Your task to perform on an android device: Show me the alarms in the clock app Image 0: 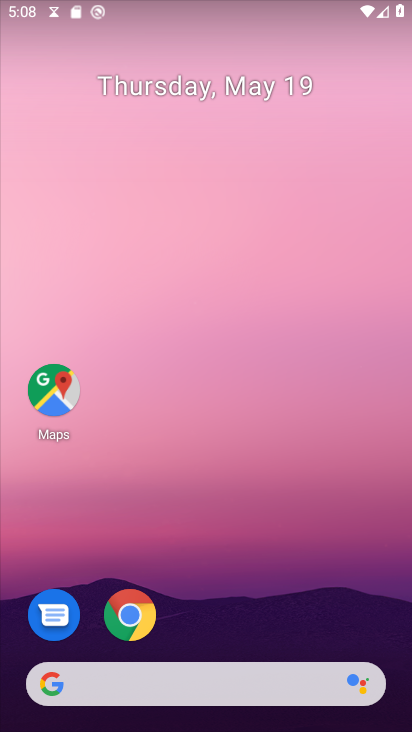
Step 0: drag from (338, 673) to (276, 113)
Your task to perform on an android device: Show me the alarms in the clock app Image 1: 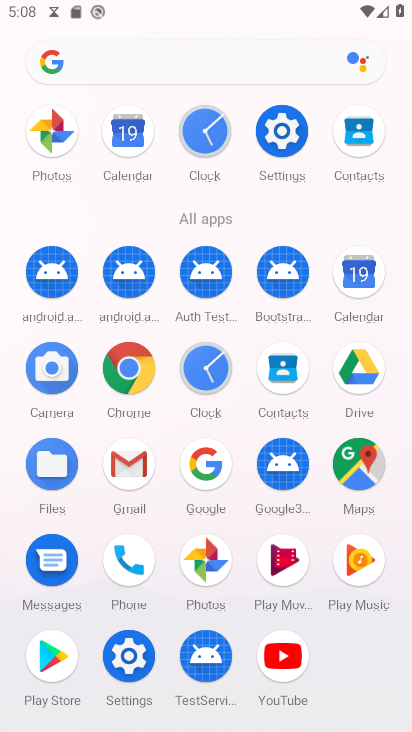
Step 1: click (126, 365)
Your task to perform on an android device: Show me the alarms in the clock app Image 2: 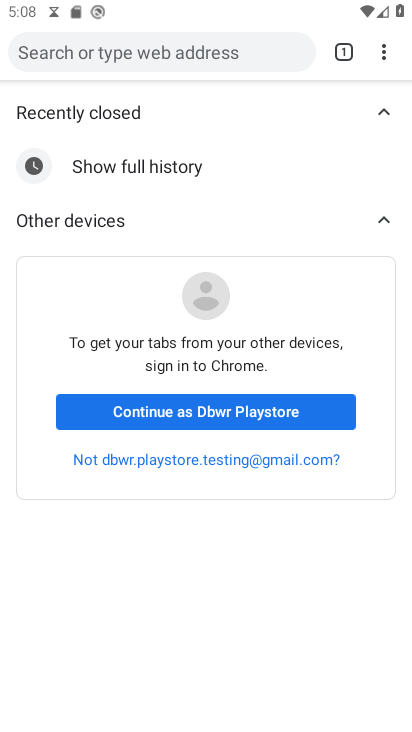
Step 2: press home button
Your task to perform on an android device: Show me the alarms in the clock app Image 3: 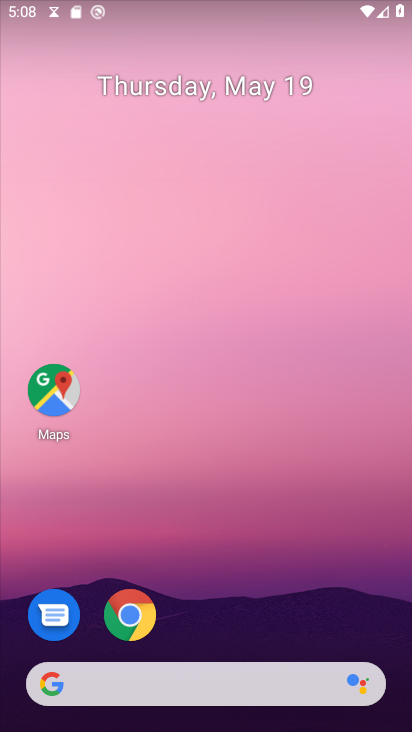
Step 3: drag from (155, 643) to (209, 19)
Your task to perform on an android device: Show me the alarms in the clock app Image 4: 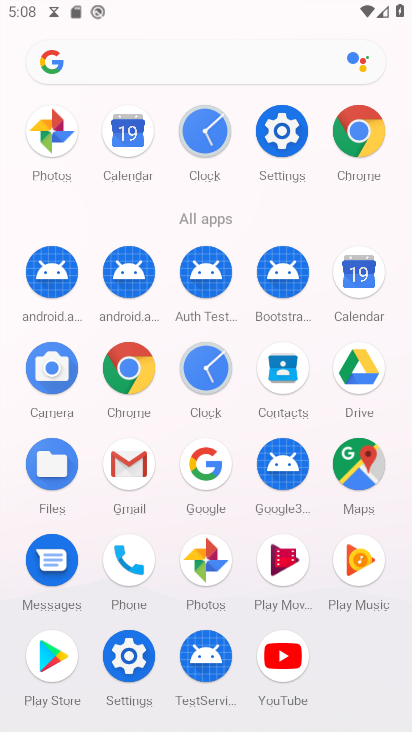
Step 4: click (211, 379)
Your task to perform on an android device: Show me the alarms in the clock app Image 5: 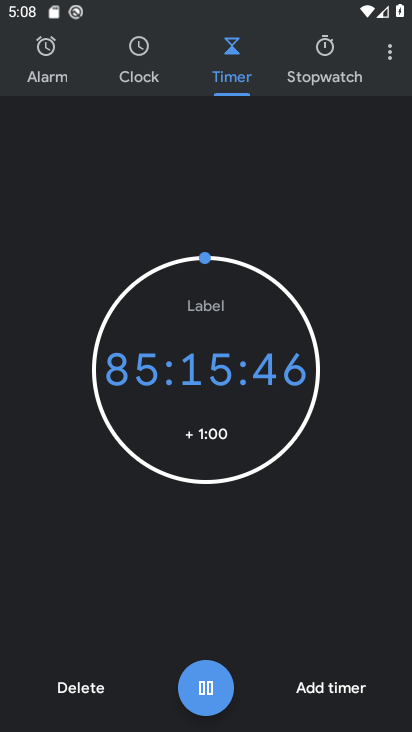
Step 5: click (50, 59)
Your task to perform on an android device: Show me the alarms in the clock app Image 6: 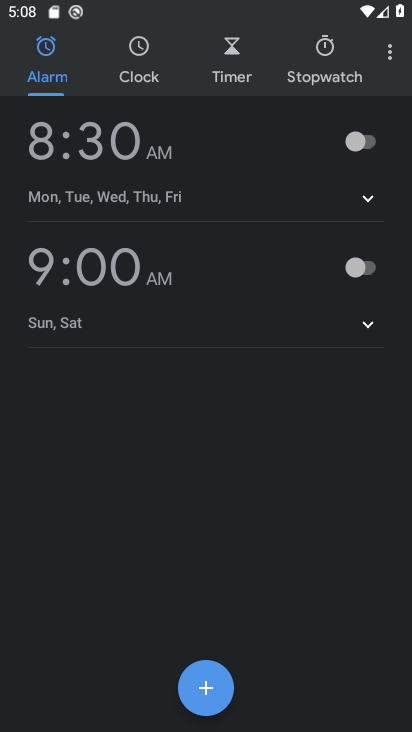
Step 6: task complete